Your task to perform on an android device: Open sound settings Image 0: 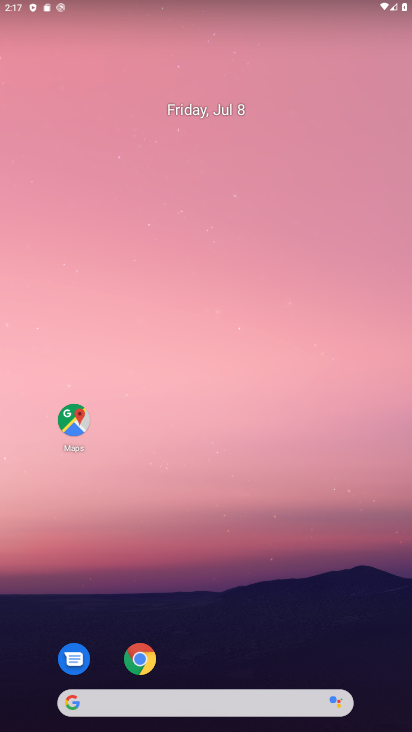
Step 0: drag from (232, 603) to (311, 0)
Your task to perform on an android device: Open sound settings Image 1: 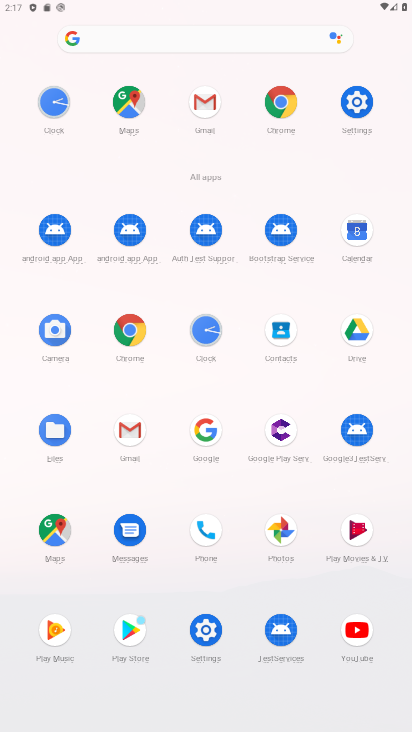
Step 1: click (363, 97)
Your task to perform on an android device: Open sound settings Image 2: 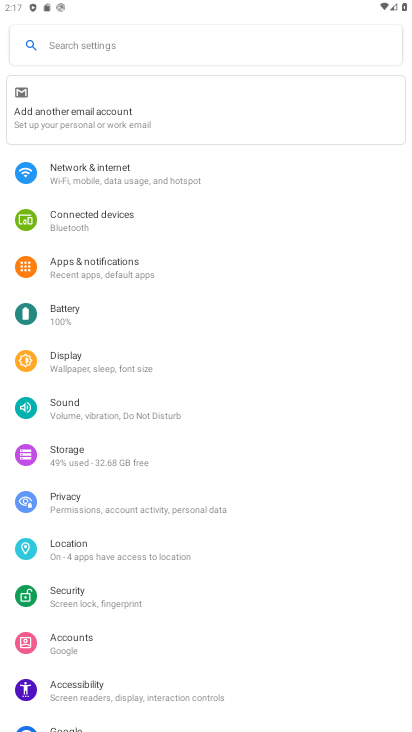
Step 2: click (135, 408)
Your task to perform on an android device: Open sound settings Image 3: 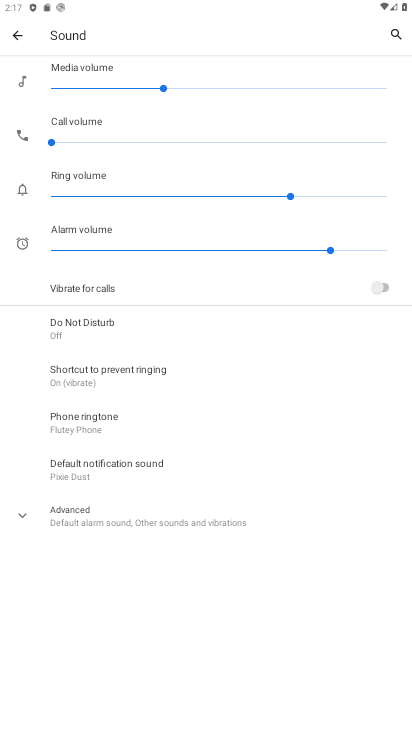
Step 3: task complete